Your task to perform on an android device: manage bookmarks in the chrome app Image 0: 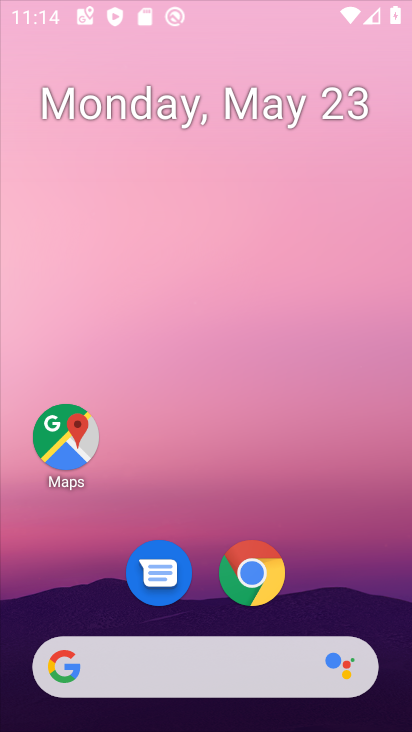
Step 0: click (287, 226)
Your task to perform on an android device: manage bookmarks in the chrome app Image 1: 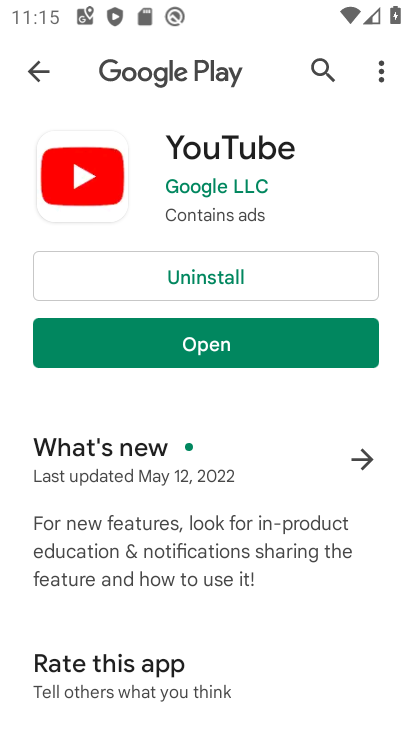
Step 1: press home button
Your task to perform on an android device: manage bookmarks in the chrome app Image 2: 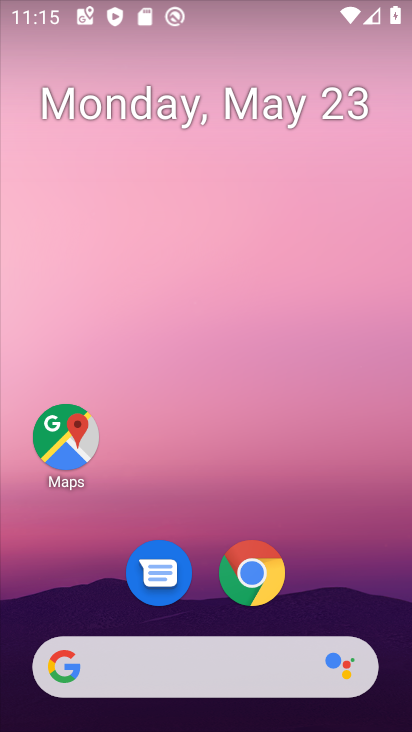
Step 2: click (246, 603)
Your task to perform on an android device: manage bookmarks in the chrome app Image 3: 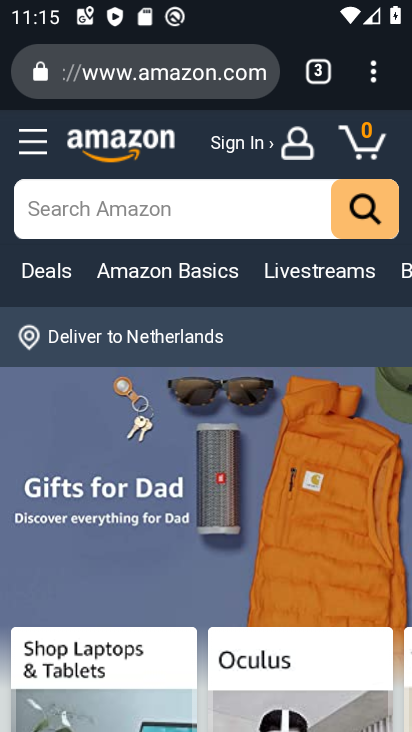
Step 3: click (372, 77)
Your task to perform on an android device: manage bookmarks in the chrome app Image 4: 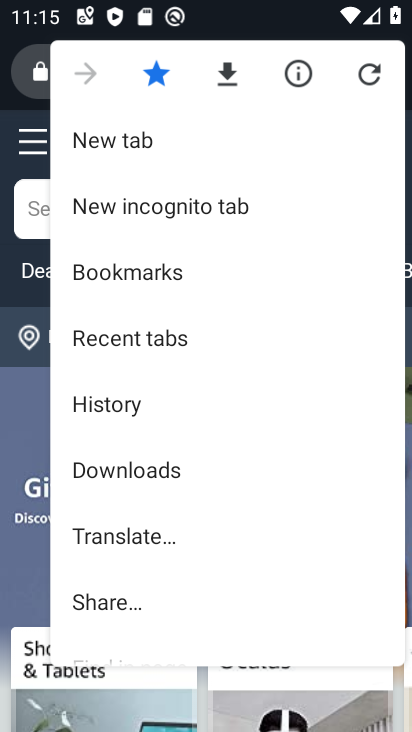
Step 4: click (219, 256)
Your task to perform on an android device: manage bookmarks in the chrome app Image 5: 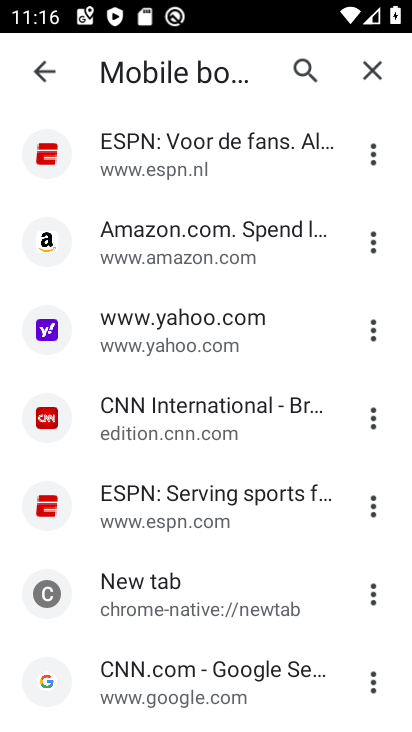
Step 5: task complete